Your task to perform on an android device: Open network settings Image 0: 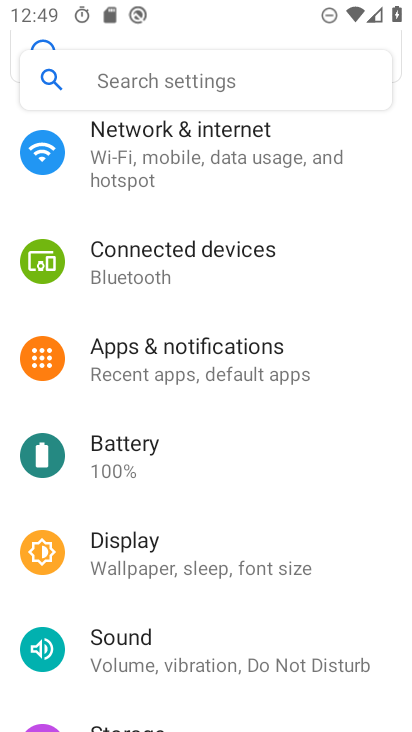
Step 0: click (157, 172)
Your task to perform on an android device: Open network settings Image 1: 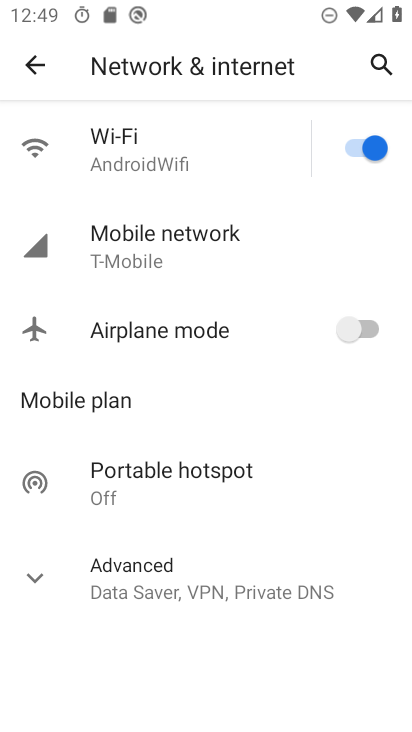
Step 1: task complete